Your task to perform on an android device: find which apps use the phone's location Image 0: 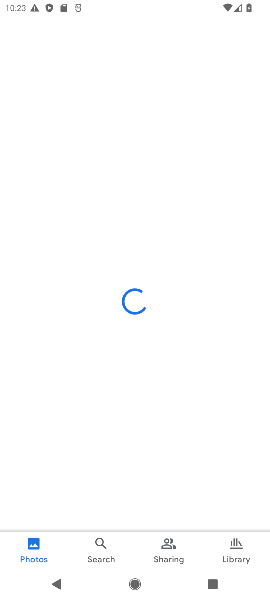
Step 0: press home button
Your task to perform on an android device: find which apps use the phone's location Image 1: 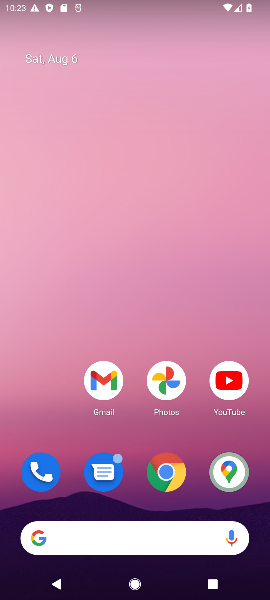
Step 1: drag from (252, 516) to (176, 28)
Your task to perform on an android device: find which apps use the phone's location Image 2: 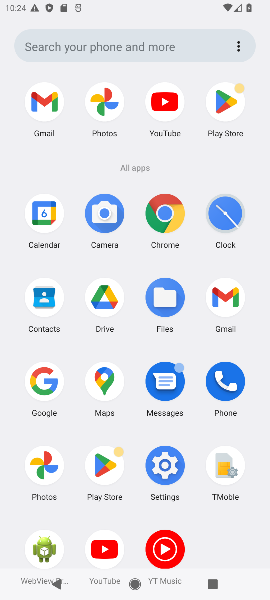
Step 2: click (155, 473)
Your task to perform on an android device: find which apps use the phone's location Image 3: 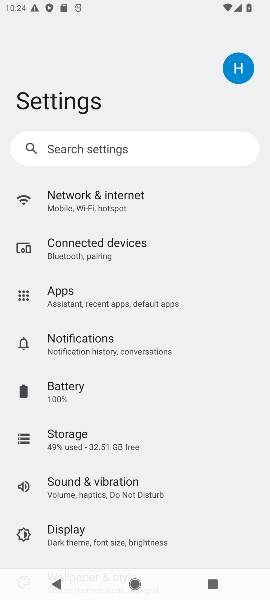
Step 3: drag from (101, 510) to (115, 149)
Your task to perform on an android device: find which apps use the phone's location Image 4: 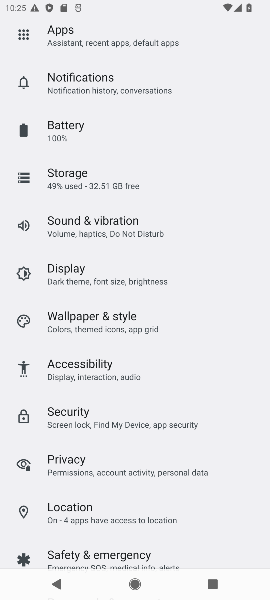
Step 4: click (68, 502)
Your task to perform on an android device: find which apps use the phone's location Image 5: 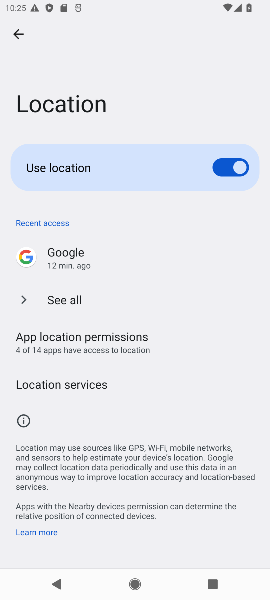
Step 5: click (101, 348)
Your task to perform on an android device: find which apps use the phone's location Image 6: 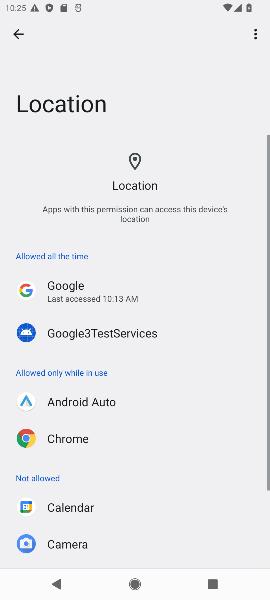
Step 6: drag from (95, 519) to (111, 169)
Your task to perform on an android device: find which apps use the phone's location Image 7: 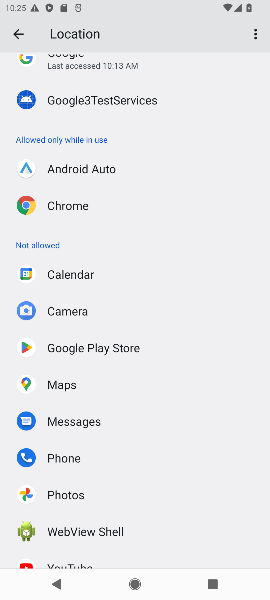
Step 7: click (56, 456)
Your task to perform on an android device: find which apps use the phone's location Image 8: 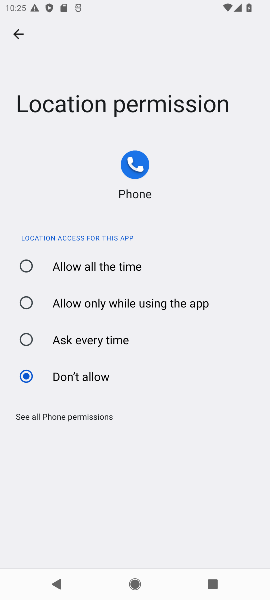
Step 8: click (68, 265)
Your task to perform on an android device: find which apps use the phone's location Image 9: 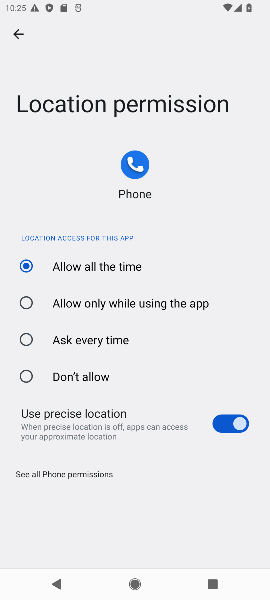
Step 9: task complete